Your task to perform on an android device: open a new tab in the chrome app Image 0: 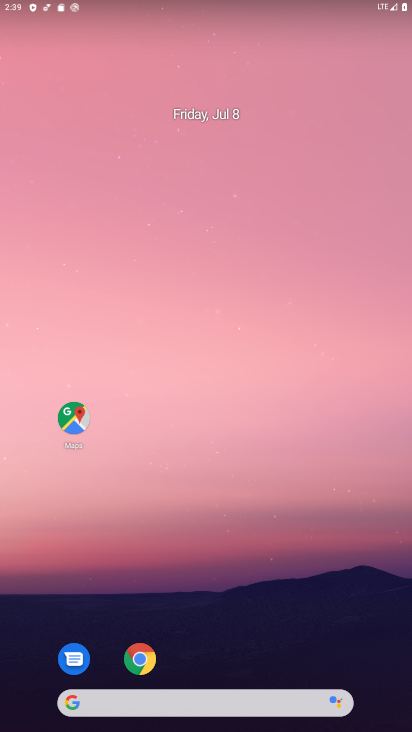
Step 0: press home button
Your task to perform on an android device: open a new tab in the chrome app Image 1: 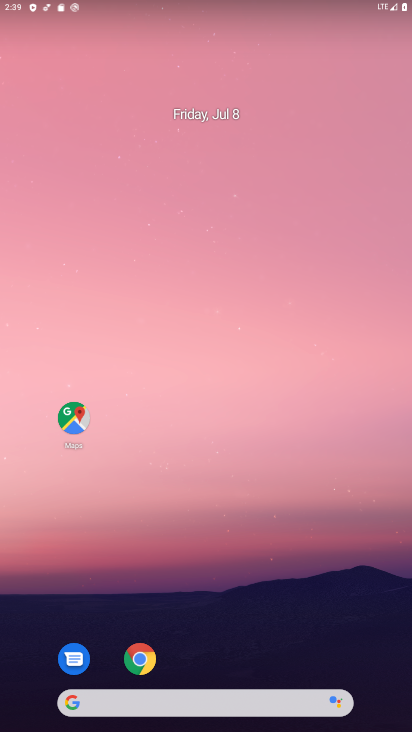
Step 1: click (141, 655)
Your task to perform on an android device: open a new tab in the chrome app Image 2: 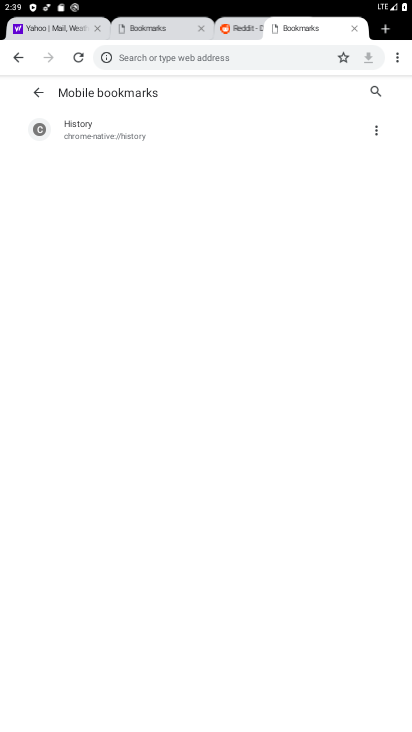
Step 2: click (394, 52)
Your task to perform on an android device: open a new tab in the chrome app Image 3: 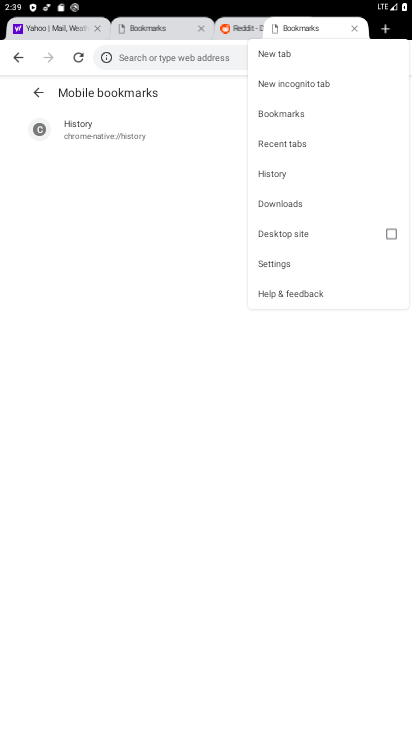
Step 3: click (305, 55)
Your task to perform on an android device: open a new tab in the chrome app Image 4: 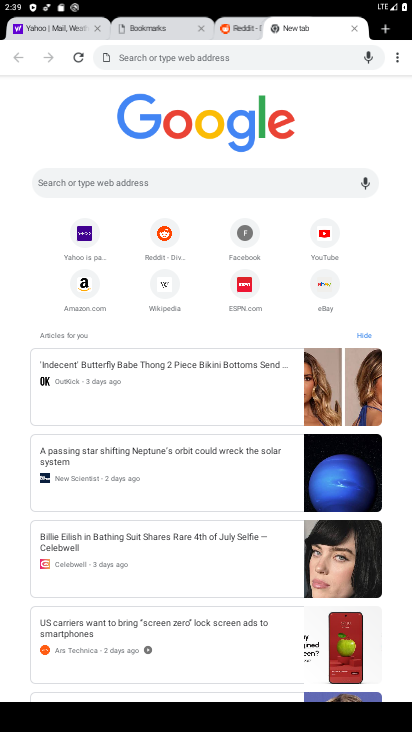
Step 4: task complete